Your task to perform on an android device: When is my next appointment? Image 0: 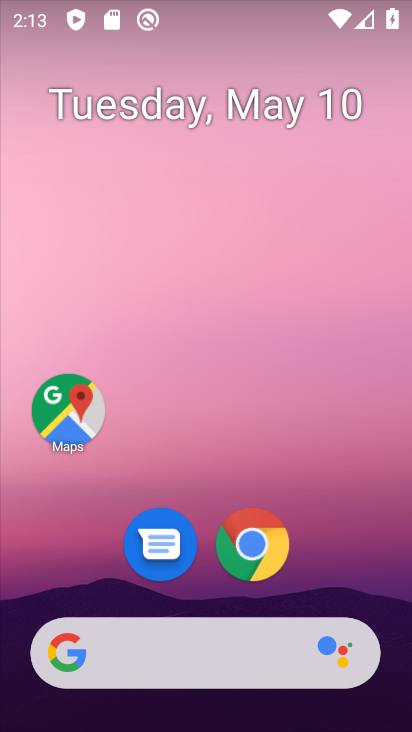
Step 0: drag from (222, 718) to (232, 108)
Your task to perform on an android device: When is my next appointment? Image 1: 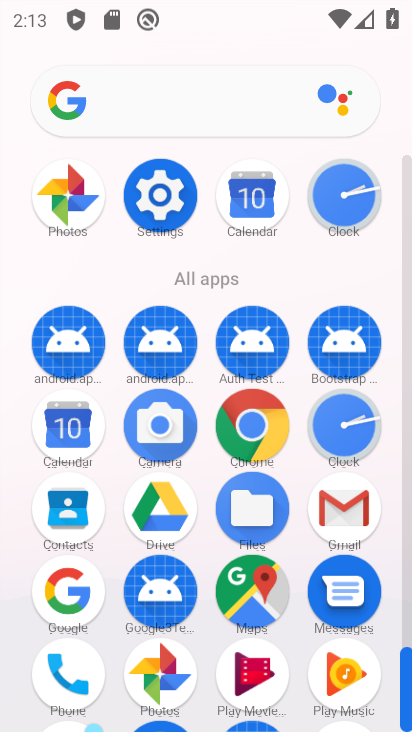
Step 1: click (71, 437)
Your task to perform on an android device: When is my next appointment? Image 2: 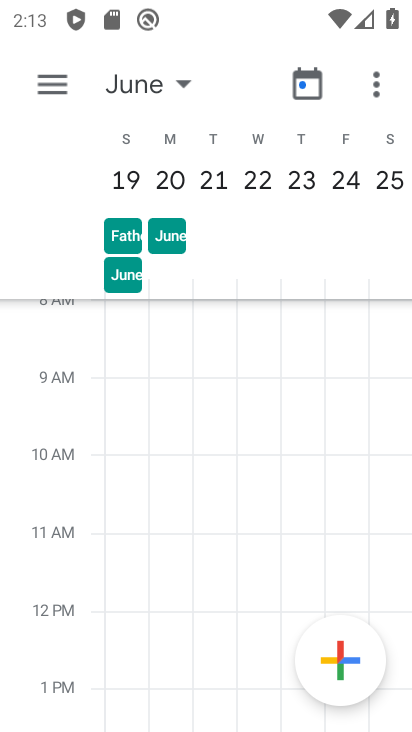
Step 2: click (183, 80)
Your task to perform on an android device: When is my next appointment? Image 3: 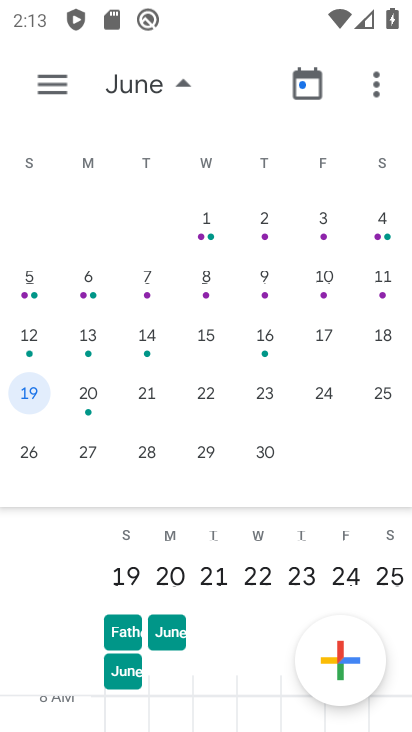
Step 3: drag from (45, 316) to (409, 354)
Your task to perform on an android device: When is my next appointment? Image 4: 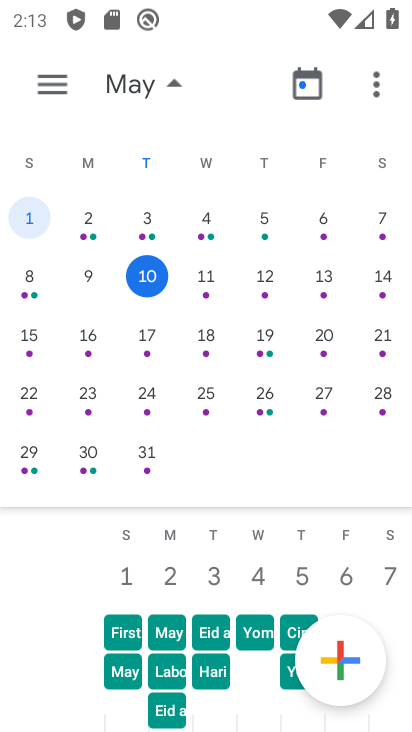
Step 4: click (144, 274)
Your task to perform on an android device: When is my next appointment? Image 5: 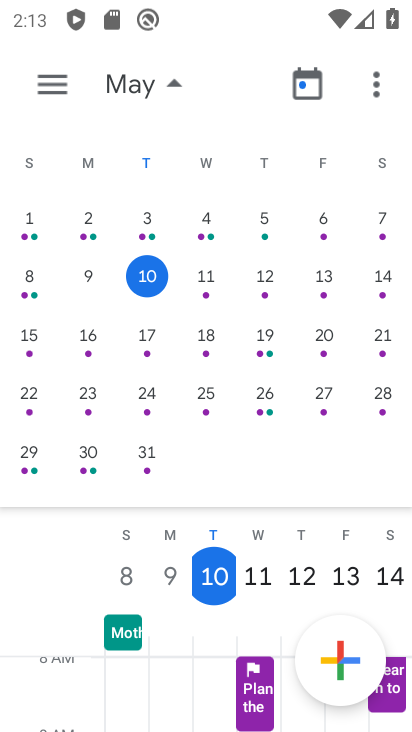
Step 5: click (174, 74)
Your task to perform on an android device: When is my next appointment? Image 6: 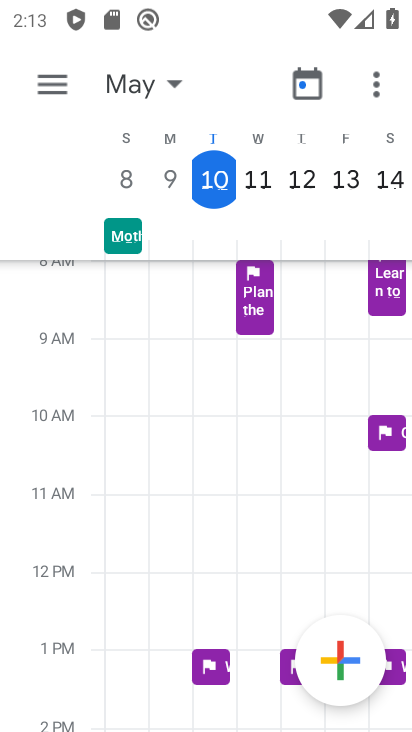
Step 6: task complete